Your task to perform on an android device: Go to accessibility settings Image 0: 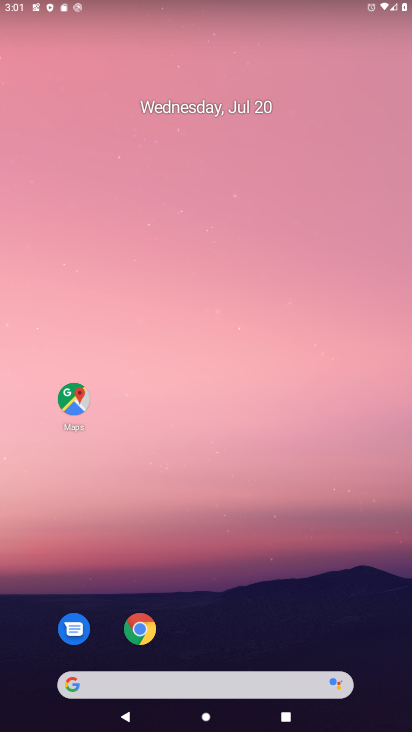
Step 0: press home button
Your task to perform on an android device: Go to accessibility settings Image 1: 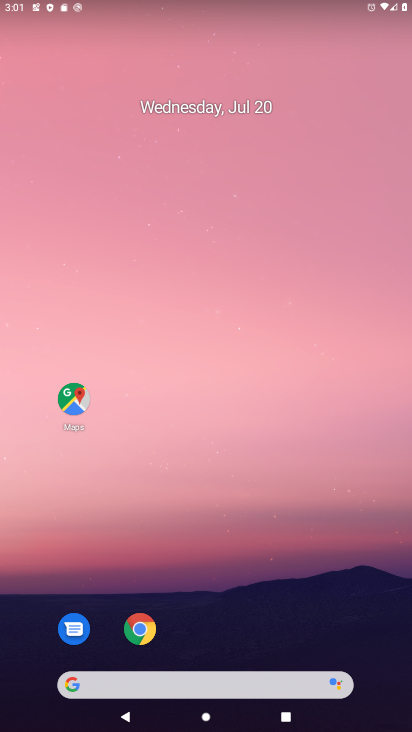
Step 1: drag from (220, 651) to (220, 45)
Your task to perform on an android device: Go to accessibility settings Image 2: 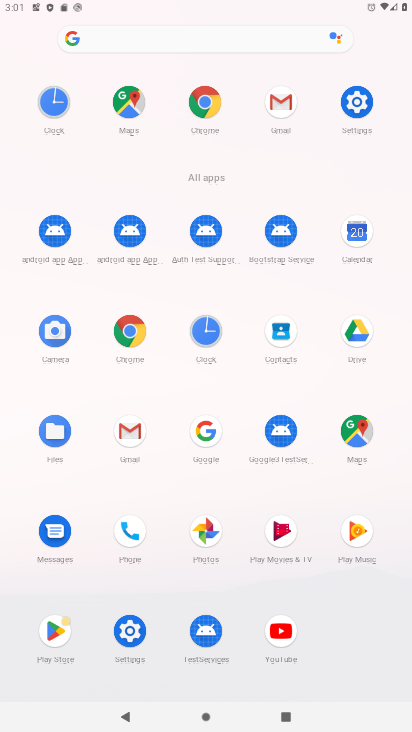
Step 2: click (353, 98)
Your task to perform on an android device: Go to accessibility settings Image 3: 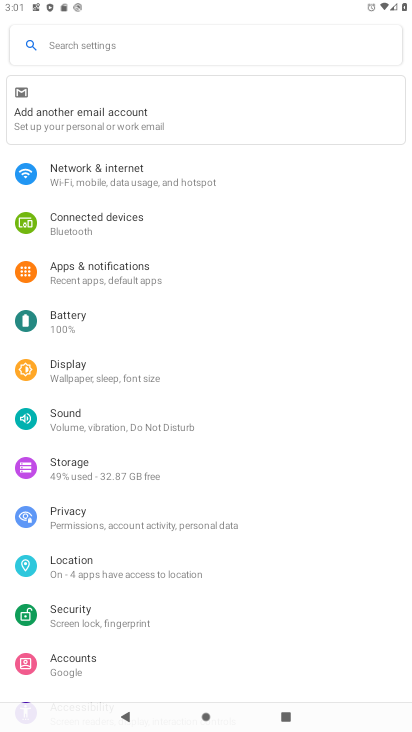
Step 3: drag from (117, 644) to (143, 159)
Your task to perform on an android device: Go to accessibility settings Image 4: 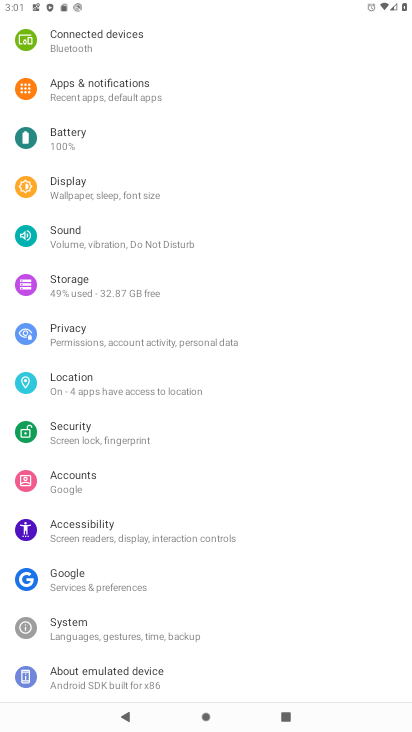
Step 4: click (126, 525)
Your task to perform on an android device: Go to accessibility settings Image 5: 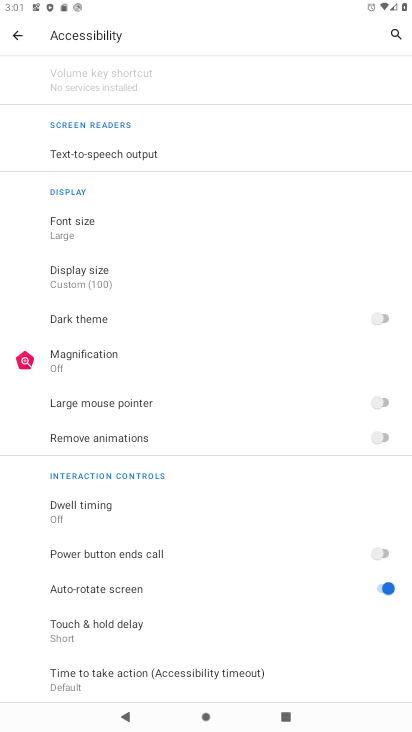
Step 5: task complete